Your task to perform on an android device: change the clock display to show seconds Image 0: 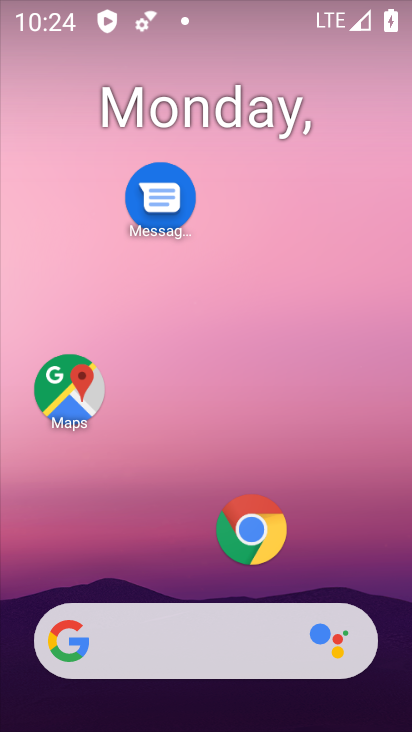
Step 0: drag from (166, 541) to (296, 157)
Your task to perform on an android device: change the clock display to show seconds Image 1: 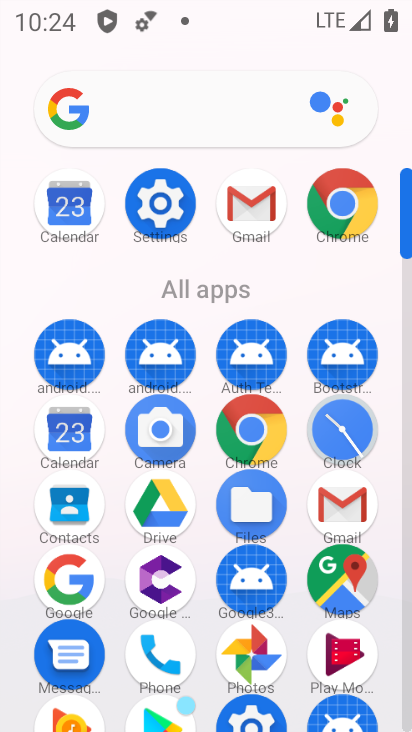
Step 1: click (360, 440)
Your task to perform on an android device: change the clock display to show seconds Image 2: 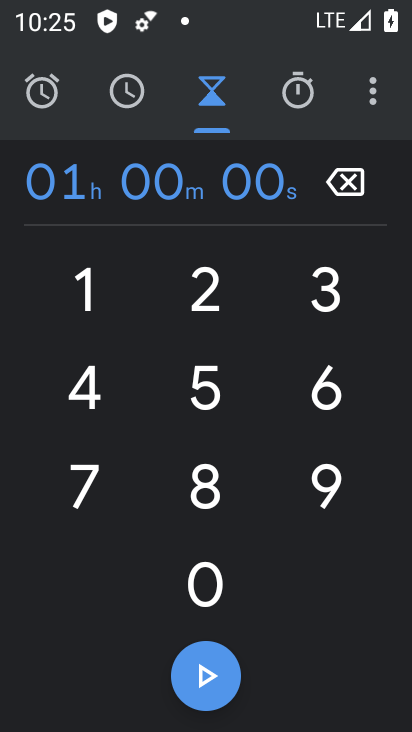
Step 2: click (372, 101)
Your task to perform on an android device: change the clock display to show seconds Image 3: 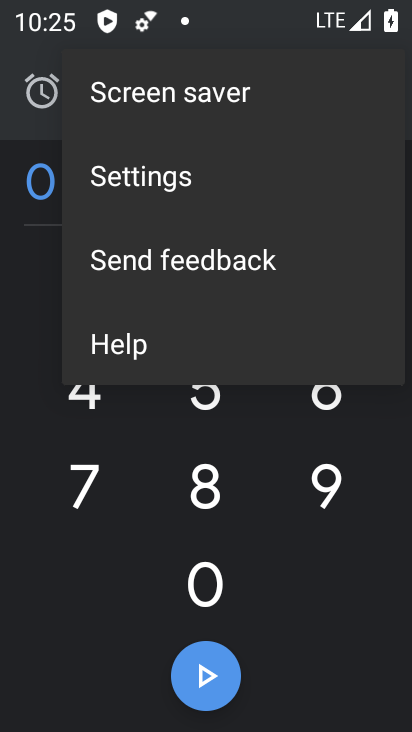
Step 3: click (216, 194)
Your task to perform on an android device: change the clock display to show seconds Image 4: 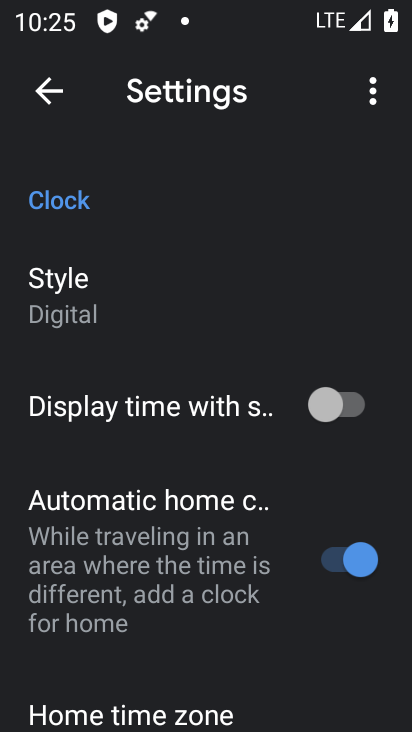
Step 4: click (311, 400)
Your task to perform on an android device: change the clock display to show seconds Image 5: 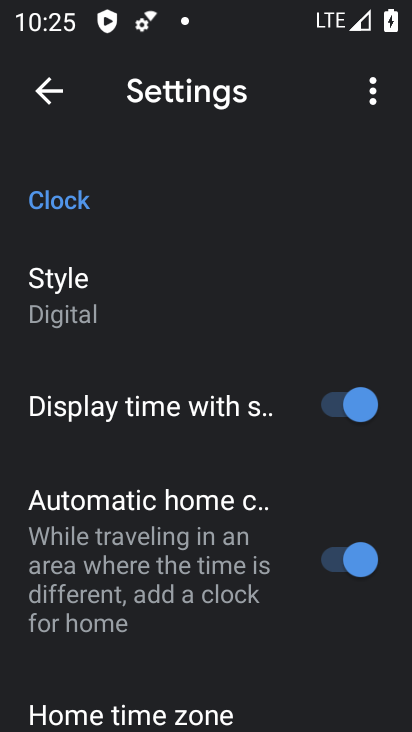
Step 5: task complete